Your task to perform on an android device: Search for "apple airpods pro" on bestbuy.com, select the first entry, and add it to the cart. Image 0: 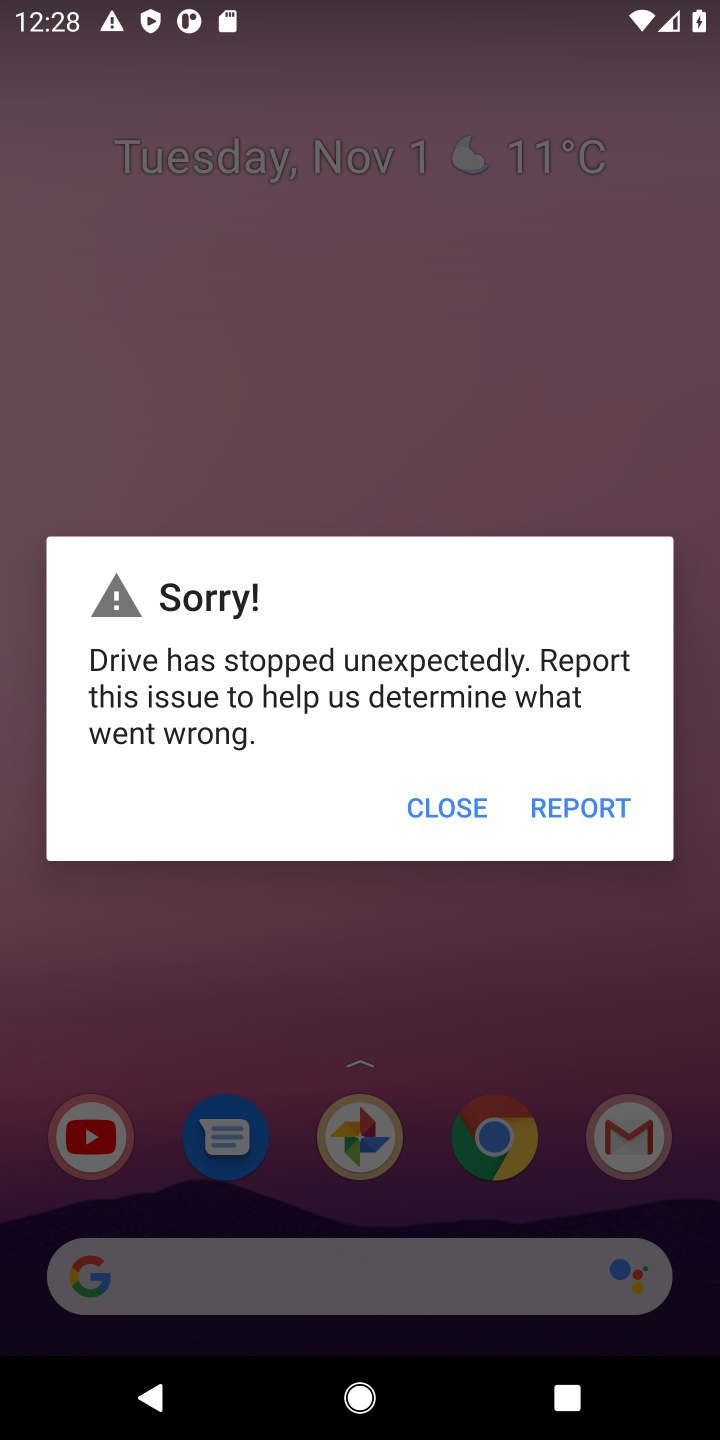
Step 0: click (440, 856)
Your task to perform on an android device: Search for "apple airpods pro" on bestbuy.com, select the first entry, and add it to the cart. Image 1: 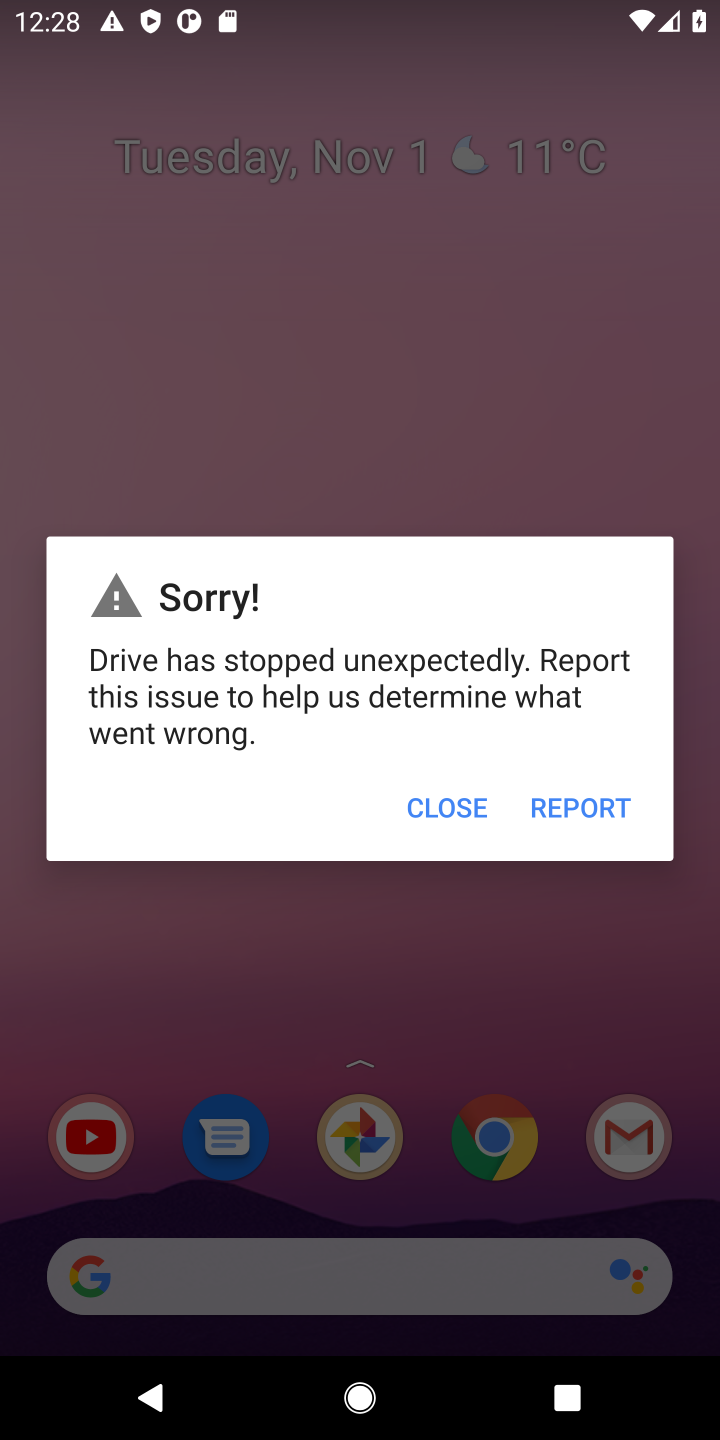
Step 1: click (437, 810)
Your task to perform on an android device: Search for "apple airpods pro" on bestbuy.com, select the first entry, and add it to the cart. Image 2: 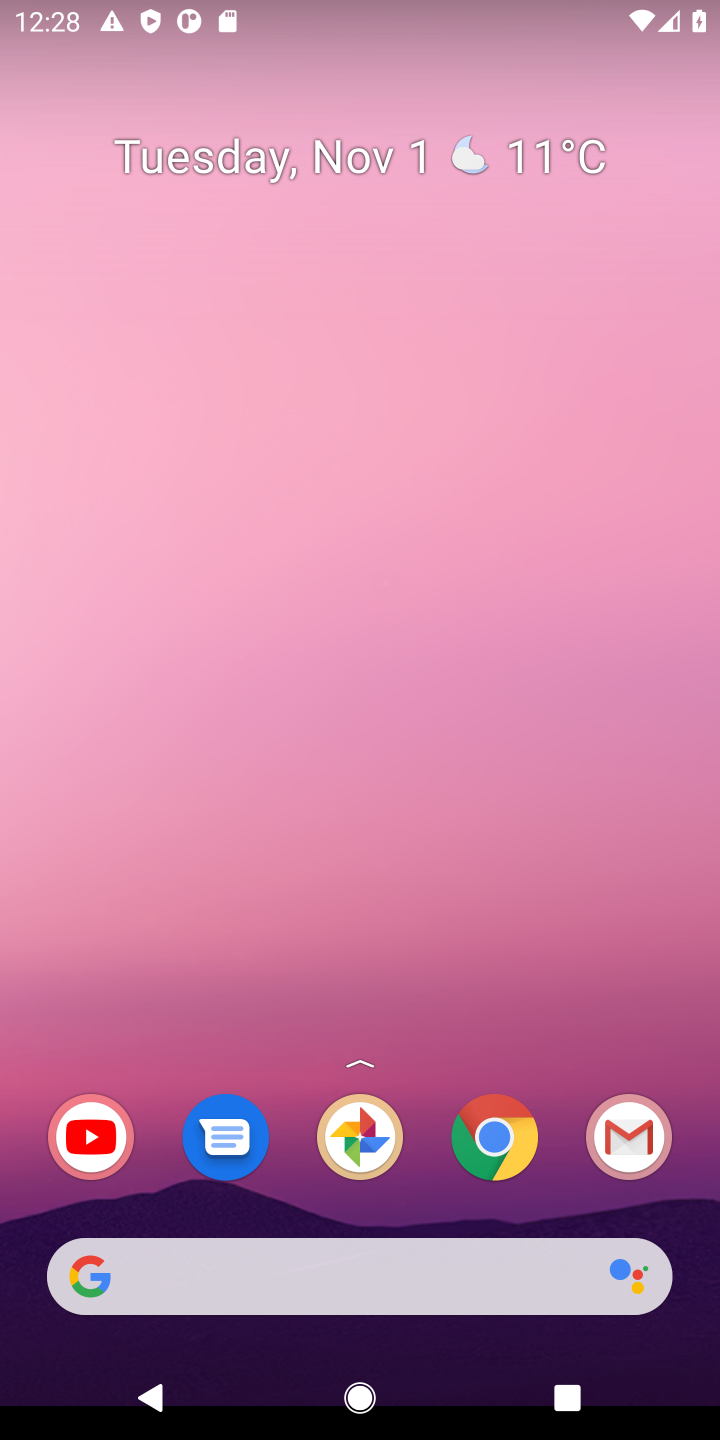
Step 2: click (453, 1035)
Your task to perform on an android device: Search for "apple airpods pro" on bestbuy.com, select the first entry, and add it to the cart. Image 3: 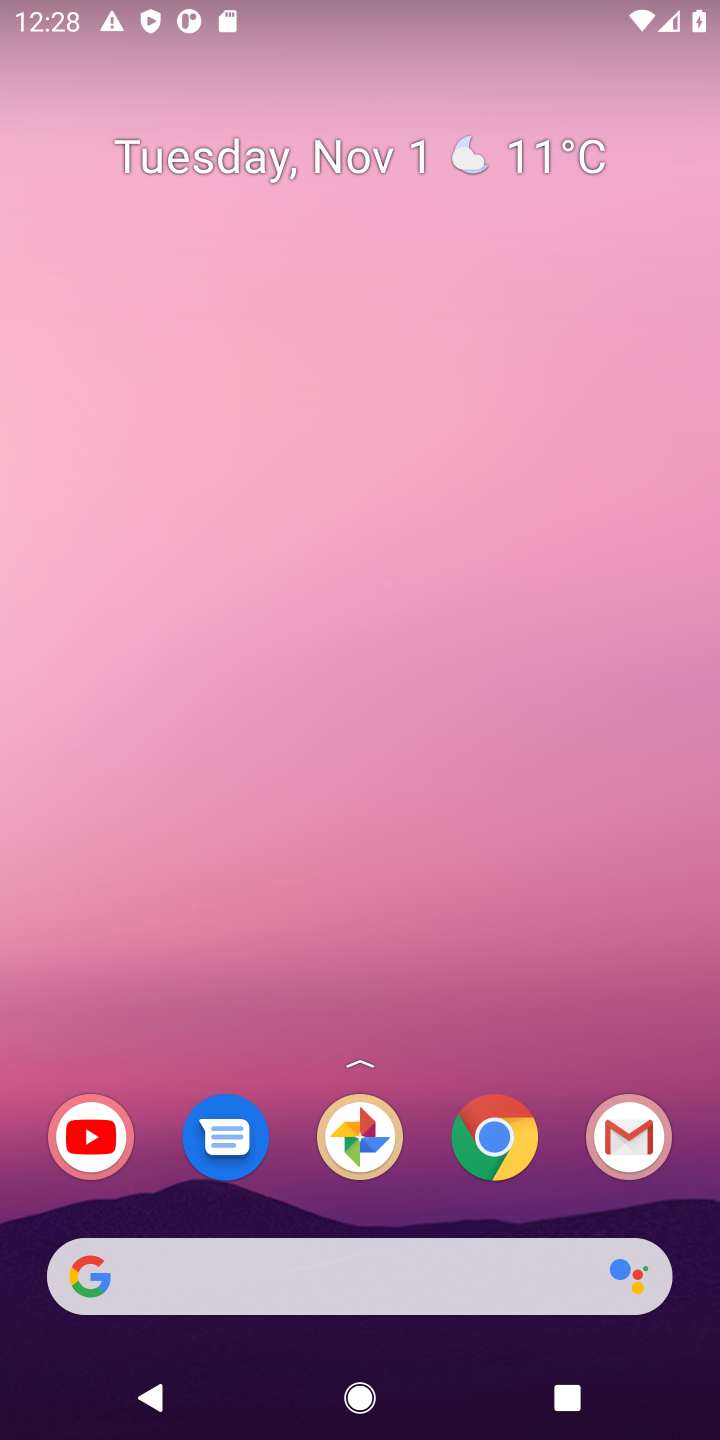
Step 3: click (502, 1149)
Your task to perform on an android device: Search for "apple airpods pro" on bestbuy.com, select the first entry, and add it to the cart. Image 4: 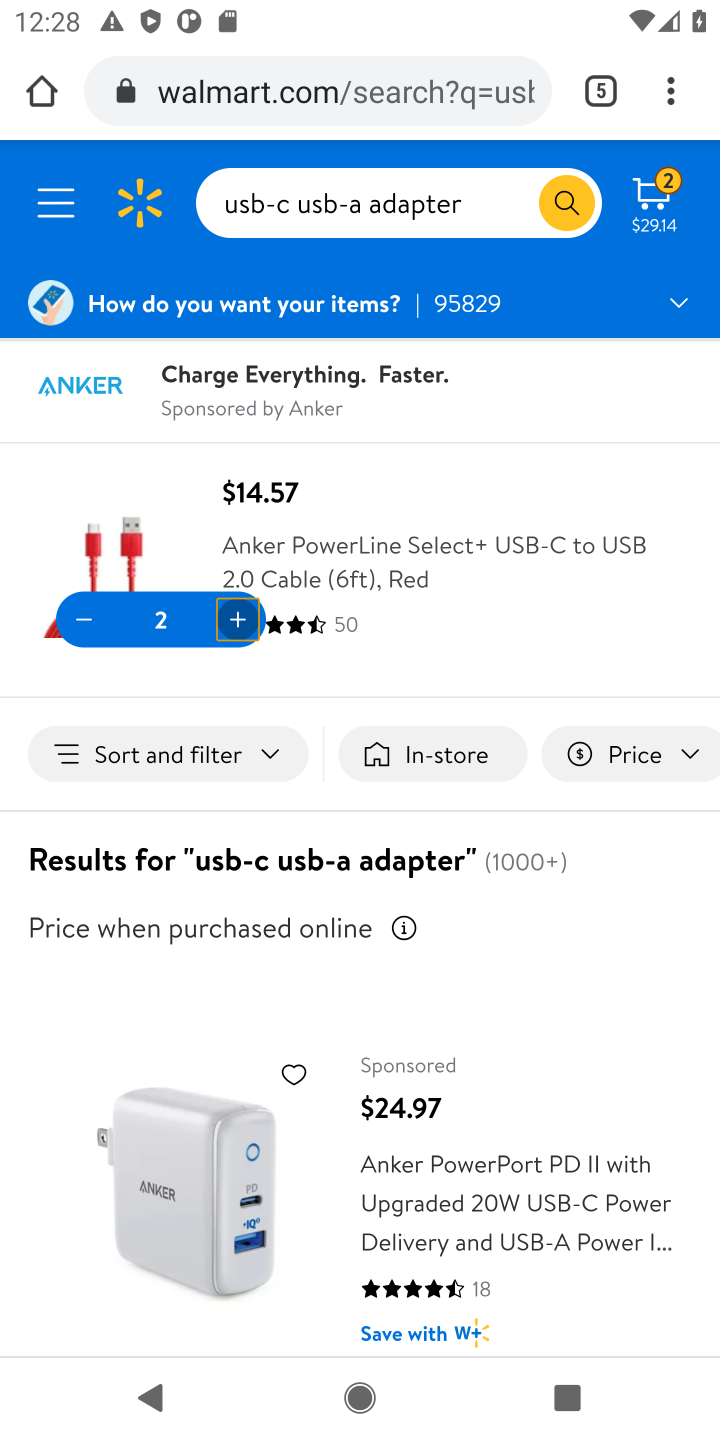
Step 4: click (603, 95)
Your task to perform on an android device: Search for "apple airpods pro" on bestbuy.com, select the first entry, and add it to the cart. Image 5: 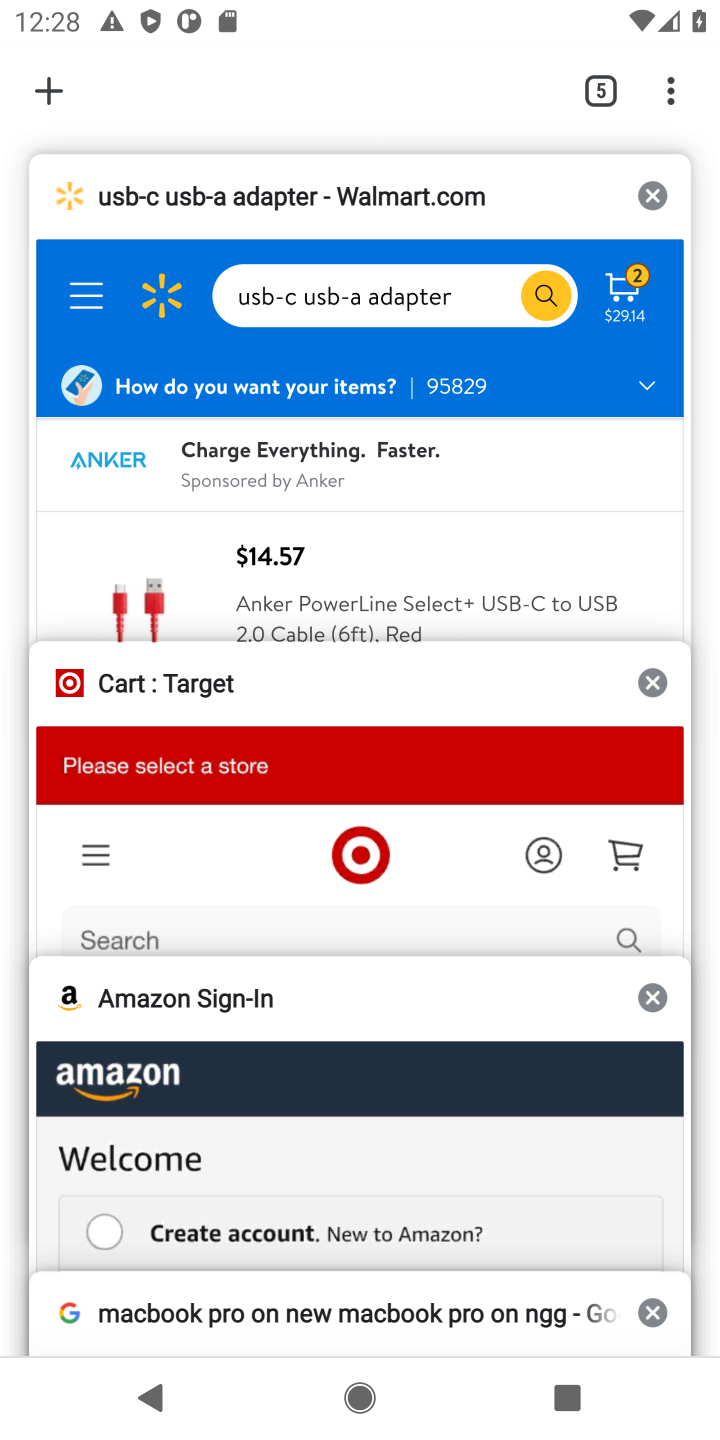
Step 5: drag from (235, 1291) to (329, 687)
Your task to perform on an android device: Search for "apple airpods pro" on bestbuy.com, select the first entry, and add it to the cart. Image 6: 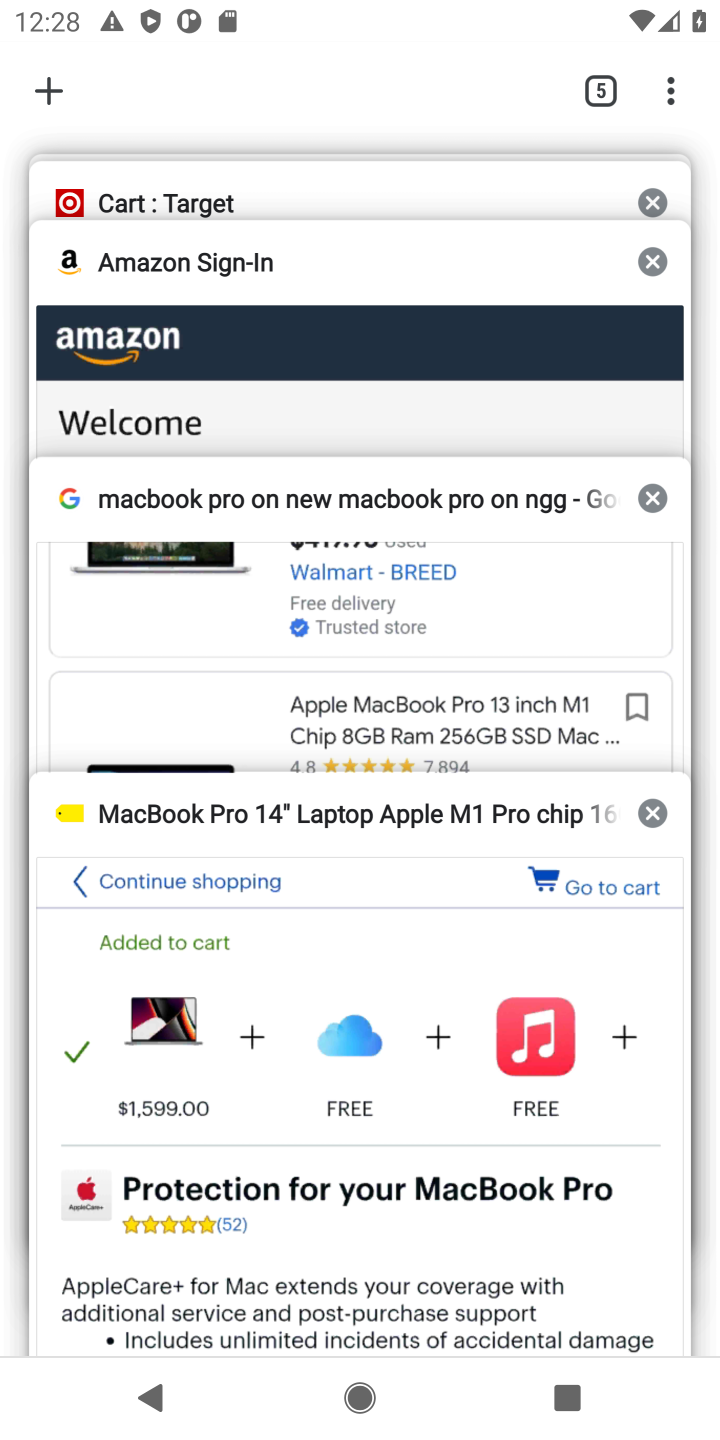
Step 6: click (331, 1019)
Your task to perform on an android device: Search for "apple airpods pro" on bestbuy.com, select the first entry, and add it to the cart. Image 7: 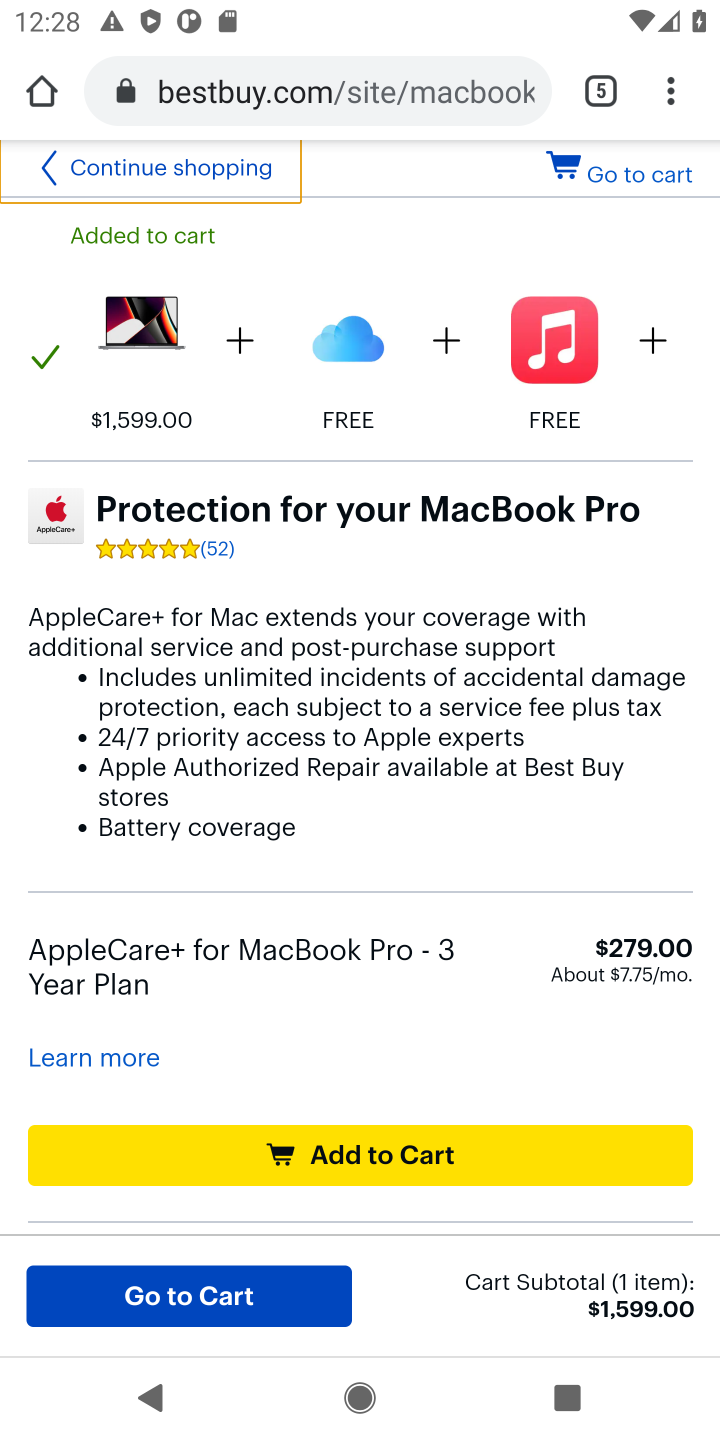
Step 7: click (199, 164)
Your task to perform on an android device: Search for "apple airpods pro" on bestbuy.com, select the first entry, and add it to the cart. Image 8: 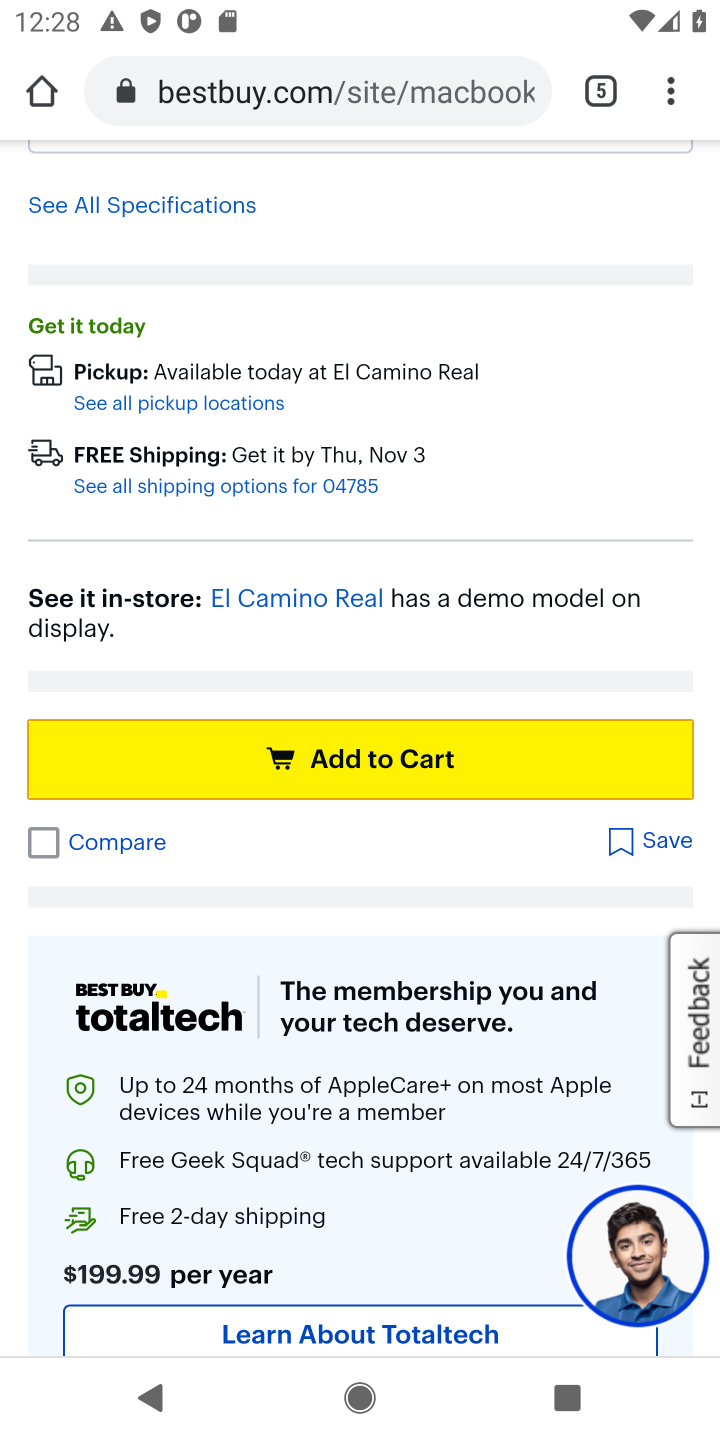
Step 8: drag from (456, 168) to (261, 1156)
Your task to perform on an android device: Search for "apple airpods pro" on bestbuy.com, select the first entry, and add it to the cart. Image 9: 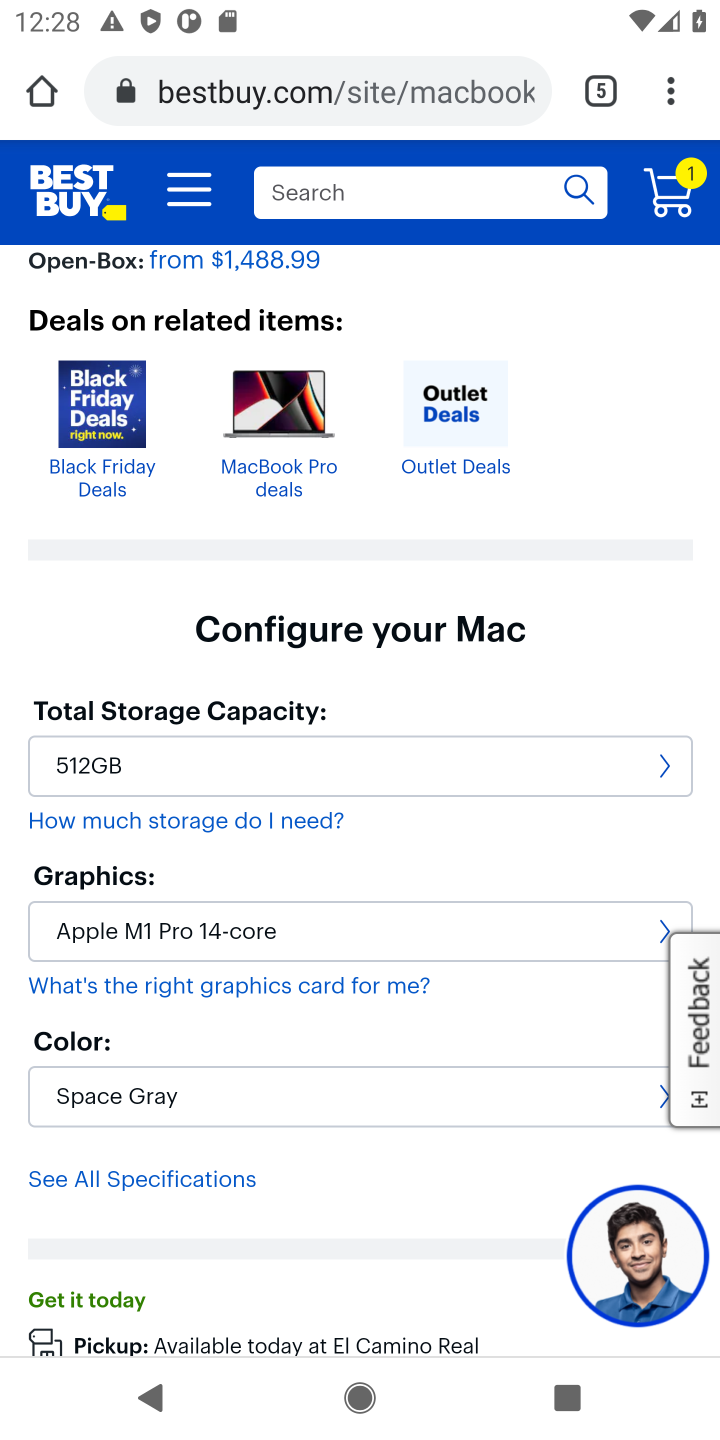
Step 9: click (442, 182)
Your task to perform on an android device: Search for "apple airpods pro" on bestbuy.com, select the first entry, and add it to the cart. Image 10: 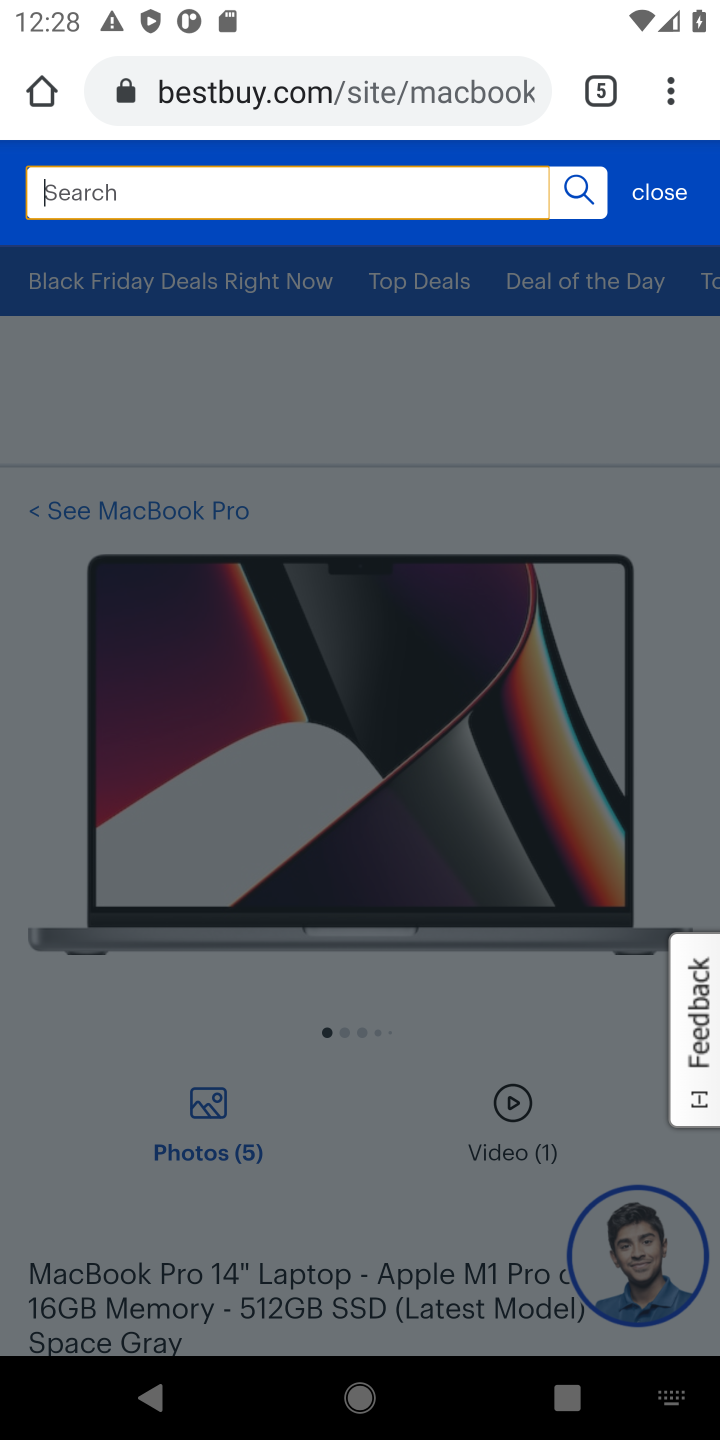
Step 10: type "apple airpods pro"
Your task to perform on an android device: Search for "apple airpods pro" on bestbuy.com, select the first entry, and add it to the cart. Image 11: 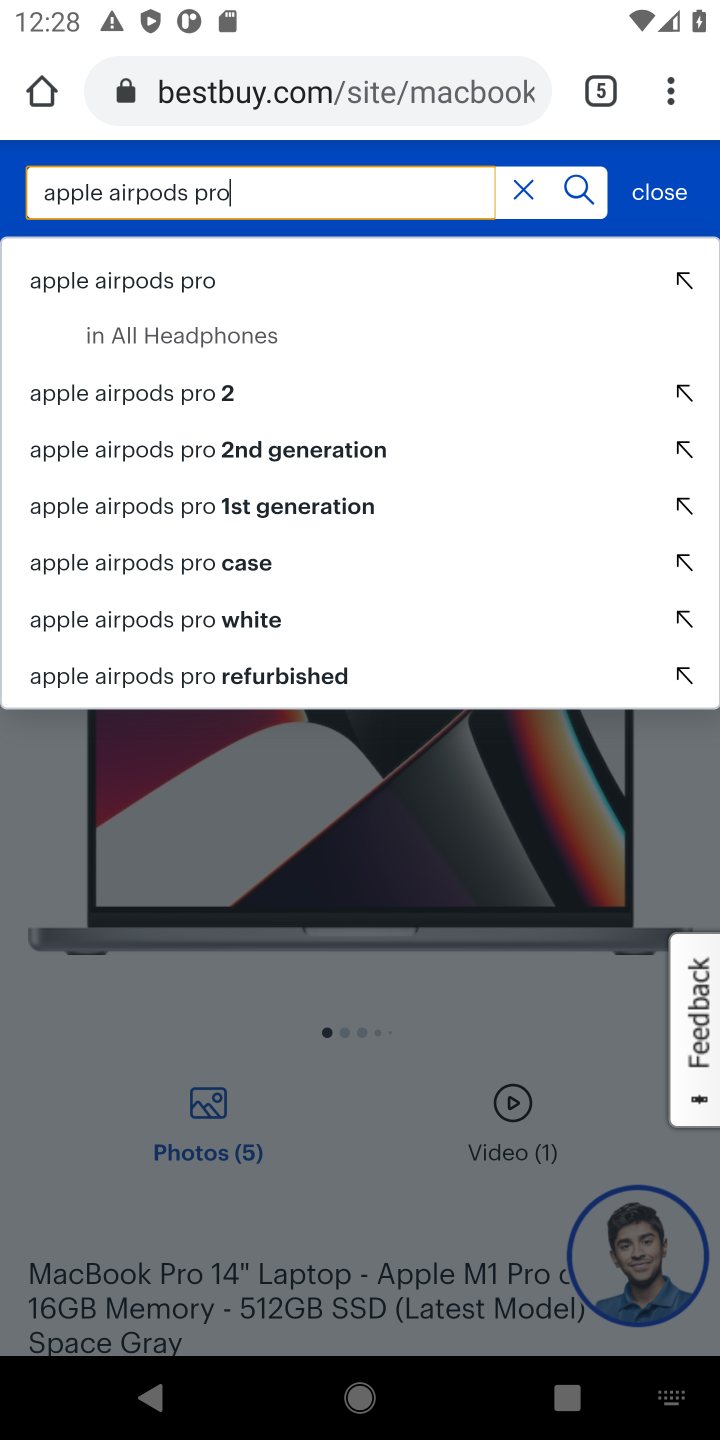
Step 11: click (161, 275)
Your task to perform on an android device: Search for "apple airpods pro" on bestbuy.com, select the first entry, and add it to the cart. Image 12: 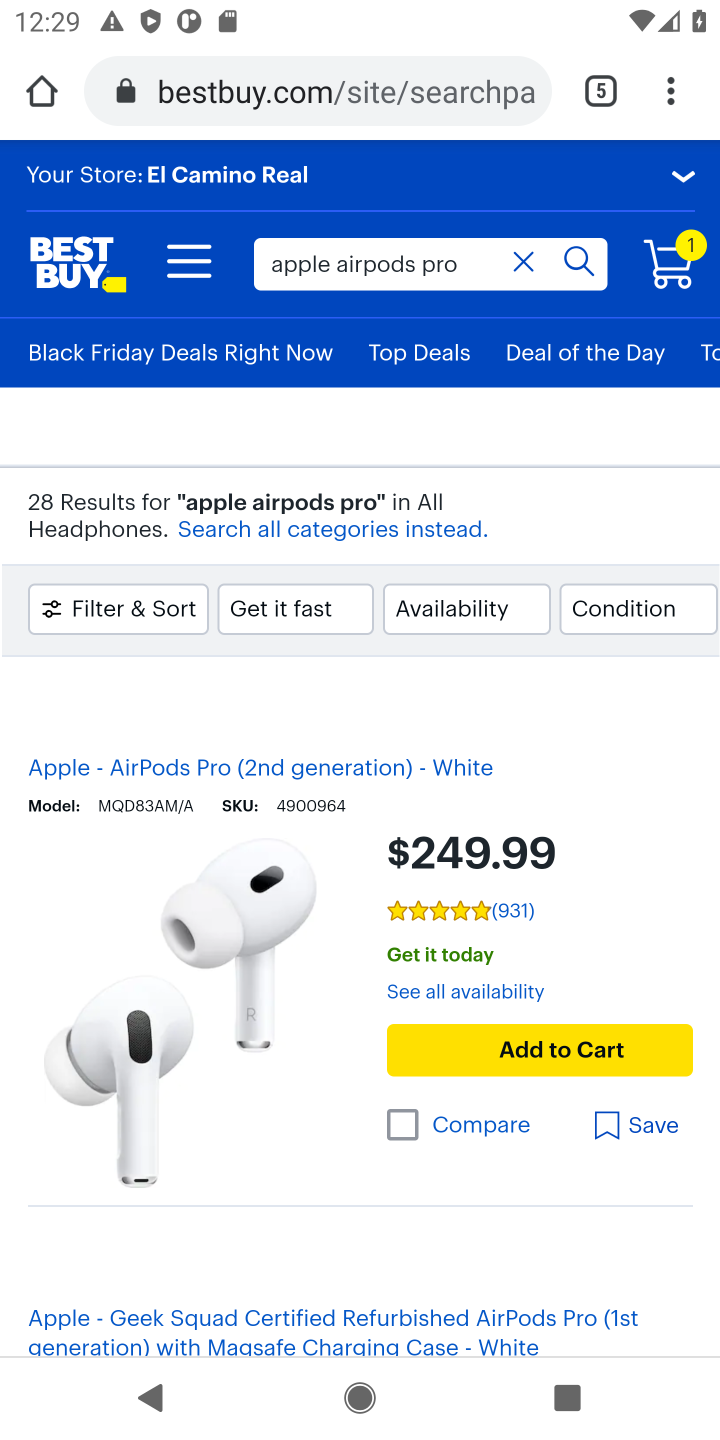
Step 12: click (520, 1038)
Your task to perform on an android device: Search for "apple airpods pro" on bestbuy.com, select the first entry, and add it to the cart. Image 13: 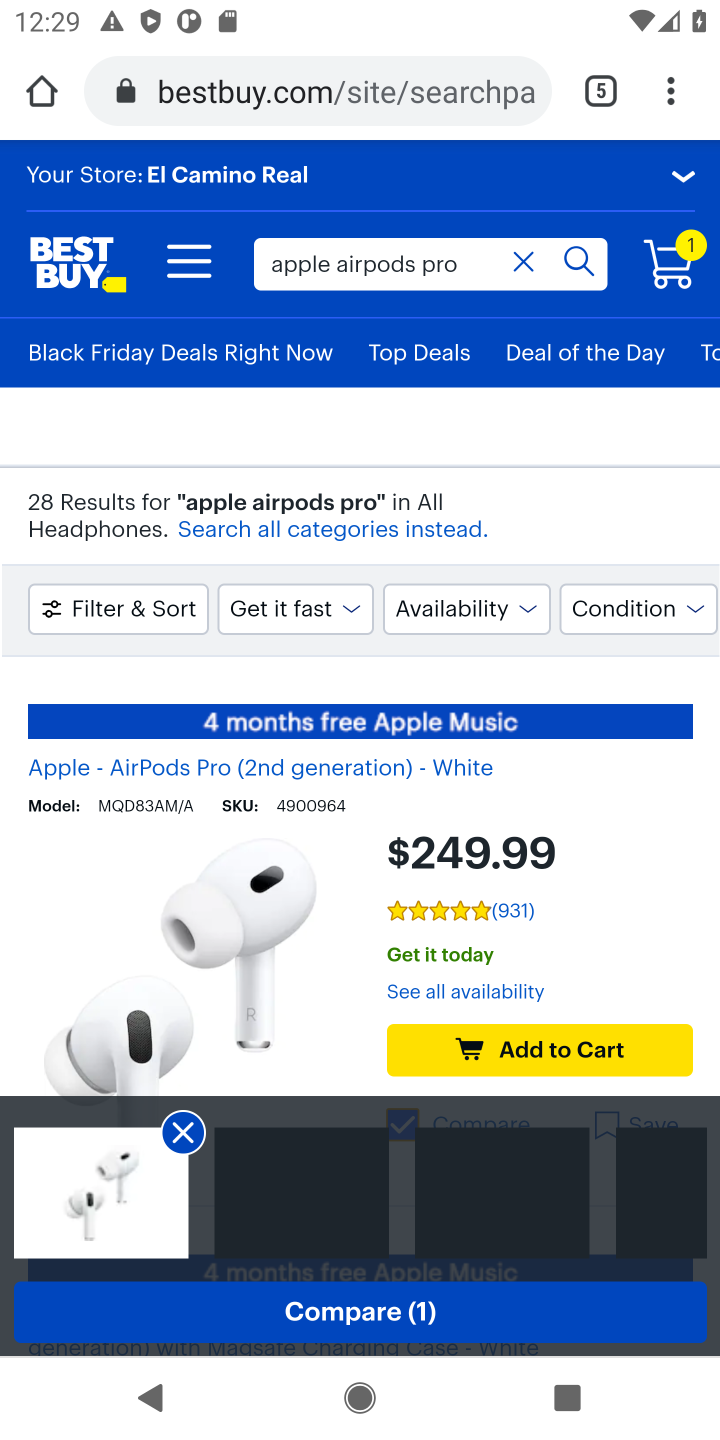
Step 13: click (181, 1138)
Your task to perform on an android device: Search for "apple airpods pro" on bestbuy.com, select the first entry, and add it to the cart. Image 14: 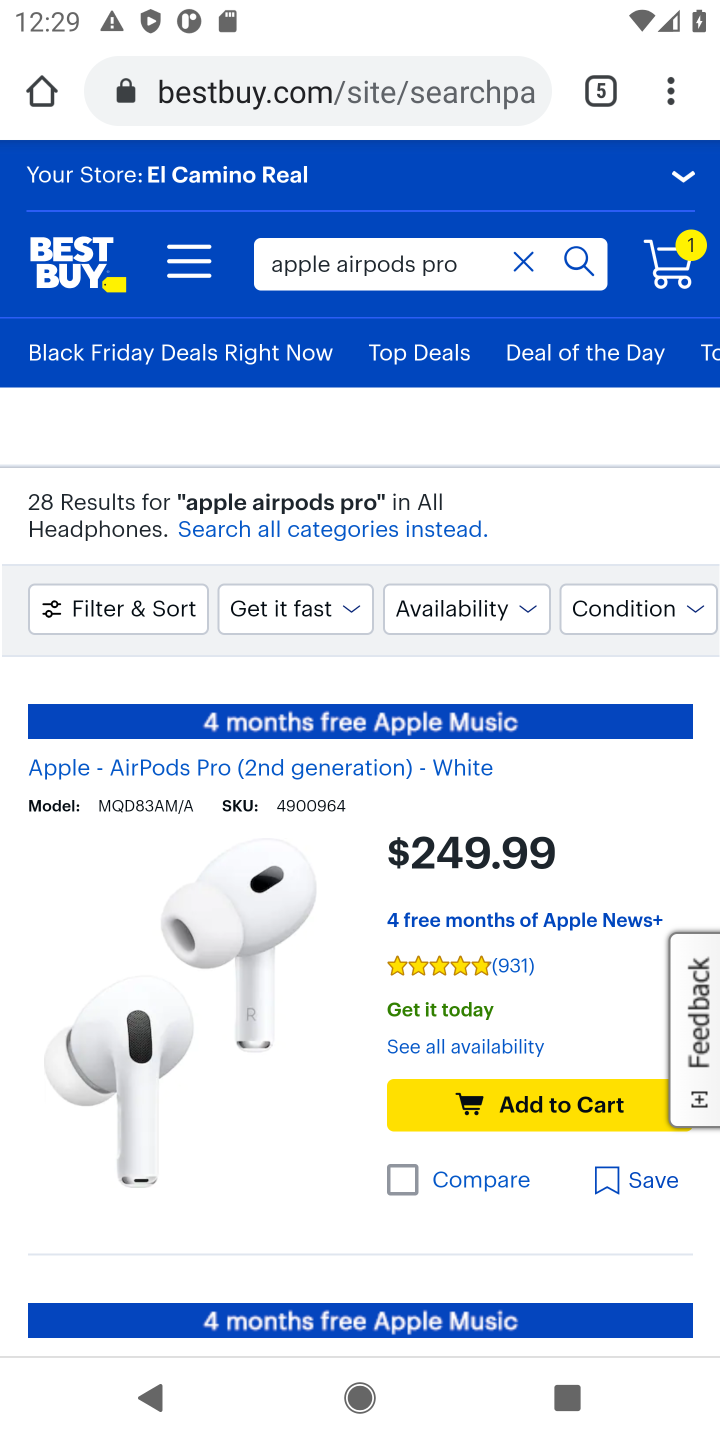
Step 14: click (483, 1098)
Your task to perform on an android device: Search for "apple airpods pro" on bestbuy.com, select the first entry, and add it to the cart. Image 15: 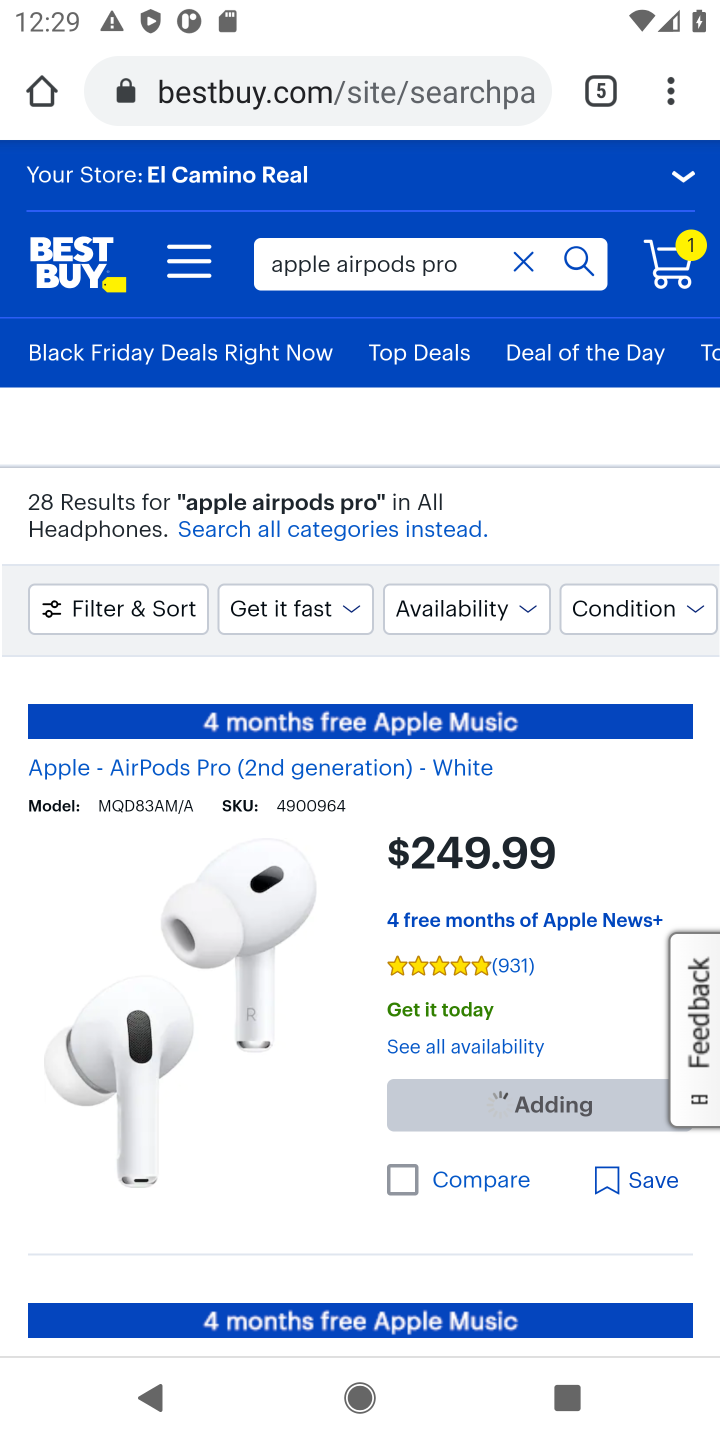
Step 15: task complete